Your task to perform on an android device: delete browsing data in the chrome app Image 0: 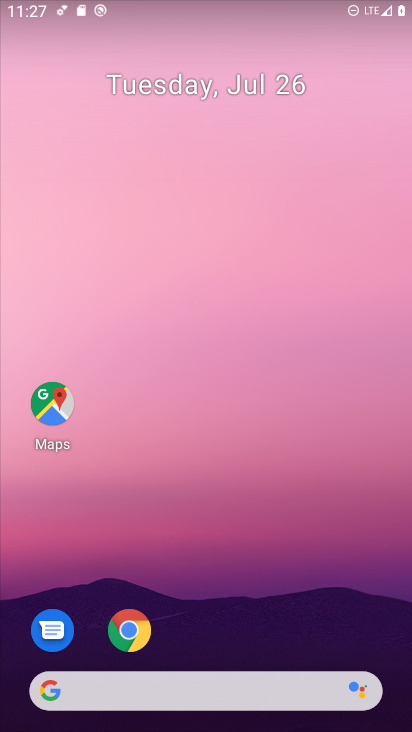
Step 0: click (126, 633)
Your task to perform on an android device: delete browsing data in the chrome app Image 1: 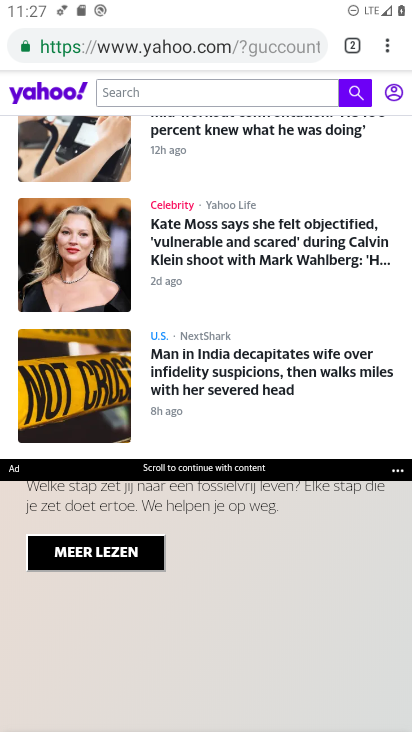
Step 1: click (384, 54)
Your task to perform on an android device: delete browsing data in the chrome app Image 2: 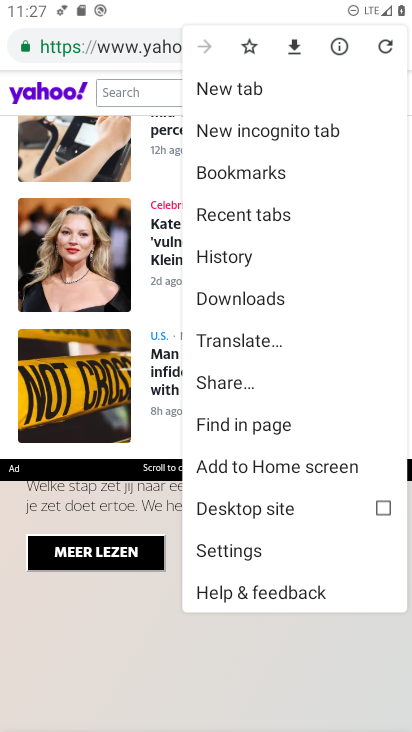
Step 2: click (234, 251)
Your task to perform on an android device: delete browsing data in the chrome app Image 3: 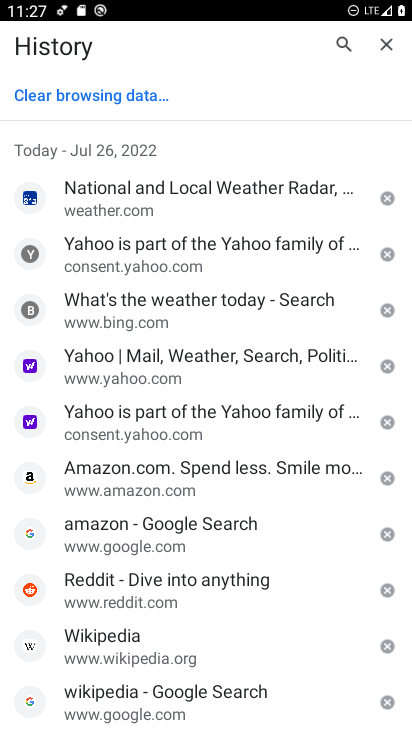
Step 3: click (93, 89)
Your task to perform on an android device: delete browsing data in the chrome app Image 4: 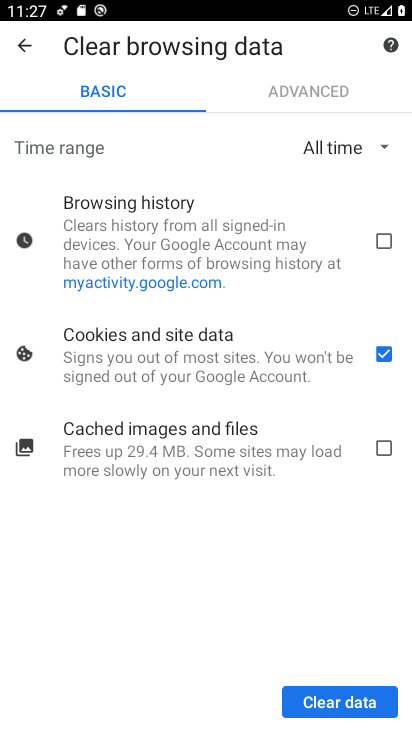
Step 4: click (384, 245)
Your task to perform on an android device: delete browsing data in the chrome app Image 5: 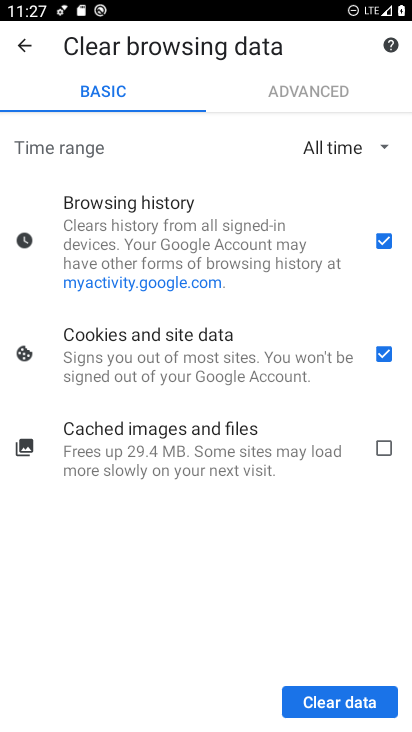
Step 5: click (387, 351)
Your task to perform on an android device: delete browsing data in the chrome app Image 6: 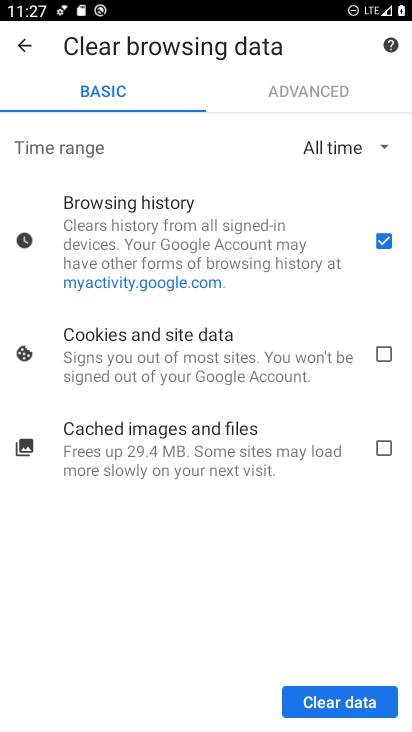
Step 6: click (339, 697)
Your task to perform on an android device: delete browsing data in the chrome app Image 7: 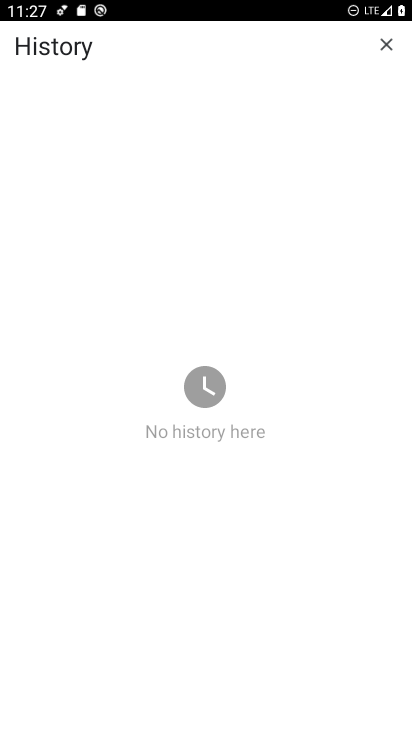
Step 7: task complete